Your task to perform on an android device: Empty the shopping cart on target. Image 0: 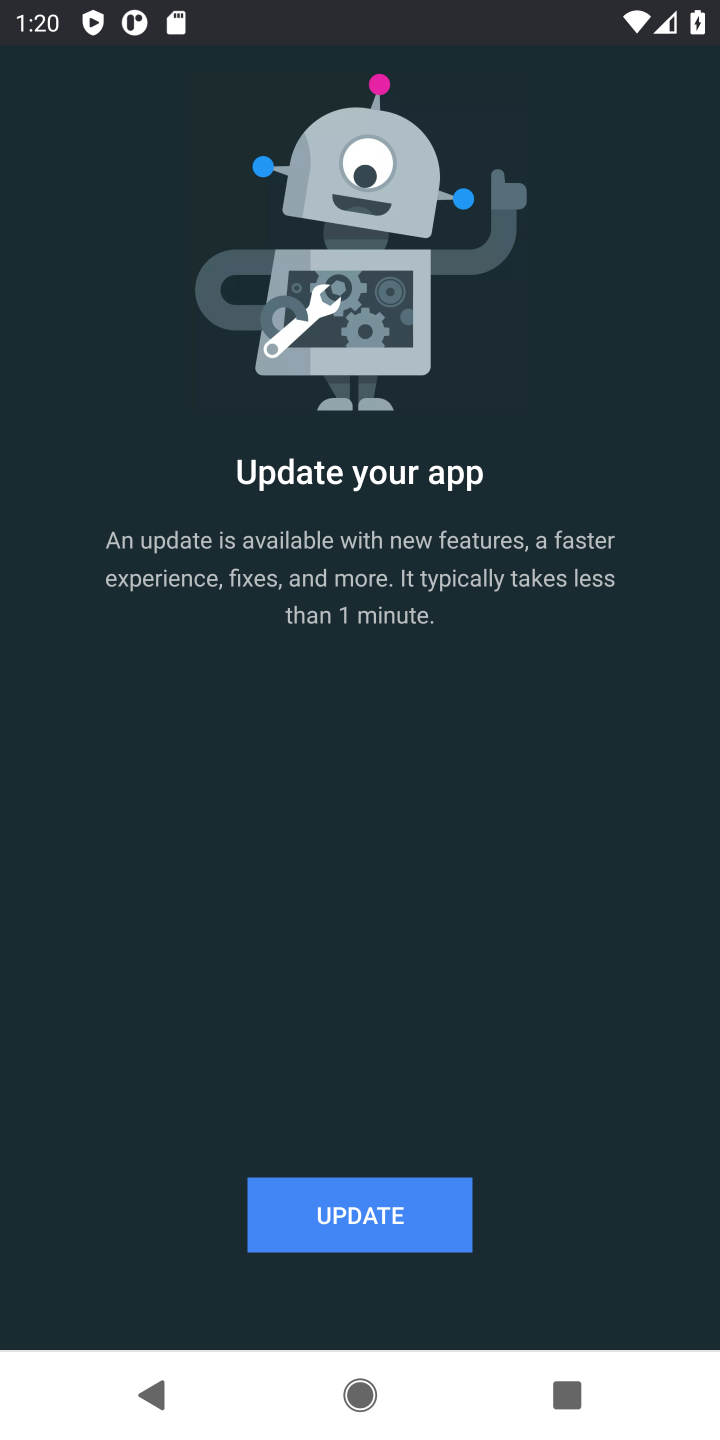
Step 0: press home button
Your task to perform on an android device: Empty the shopping cart on target. Image 1: 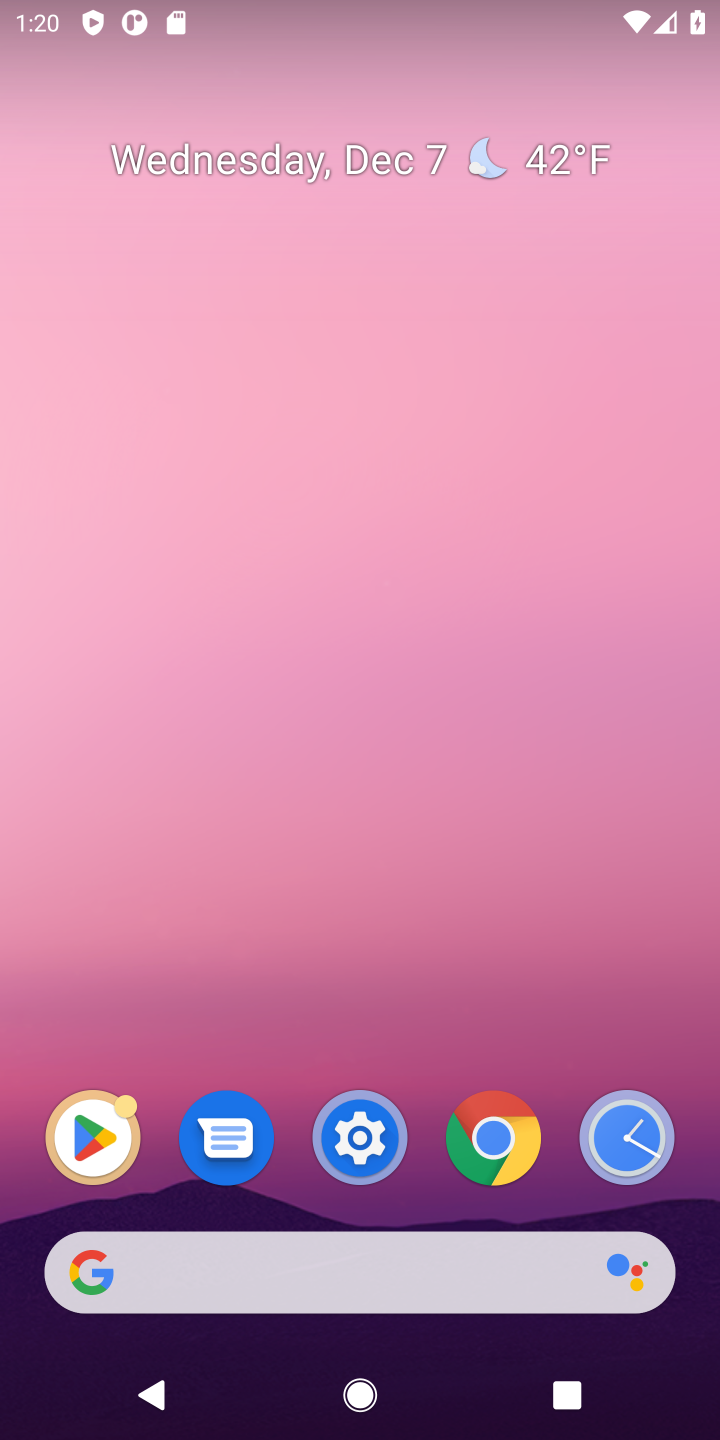
Step 1: click (227, 1270)
Your task to perform on an android device: Empty the shopping cart on target. Image 2: 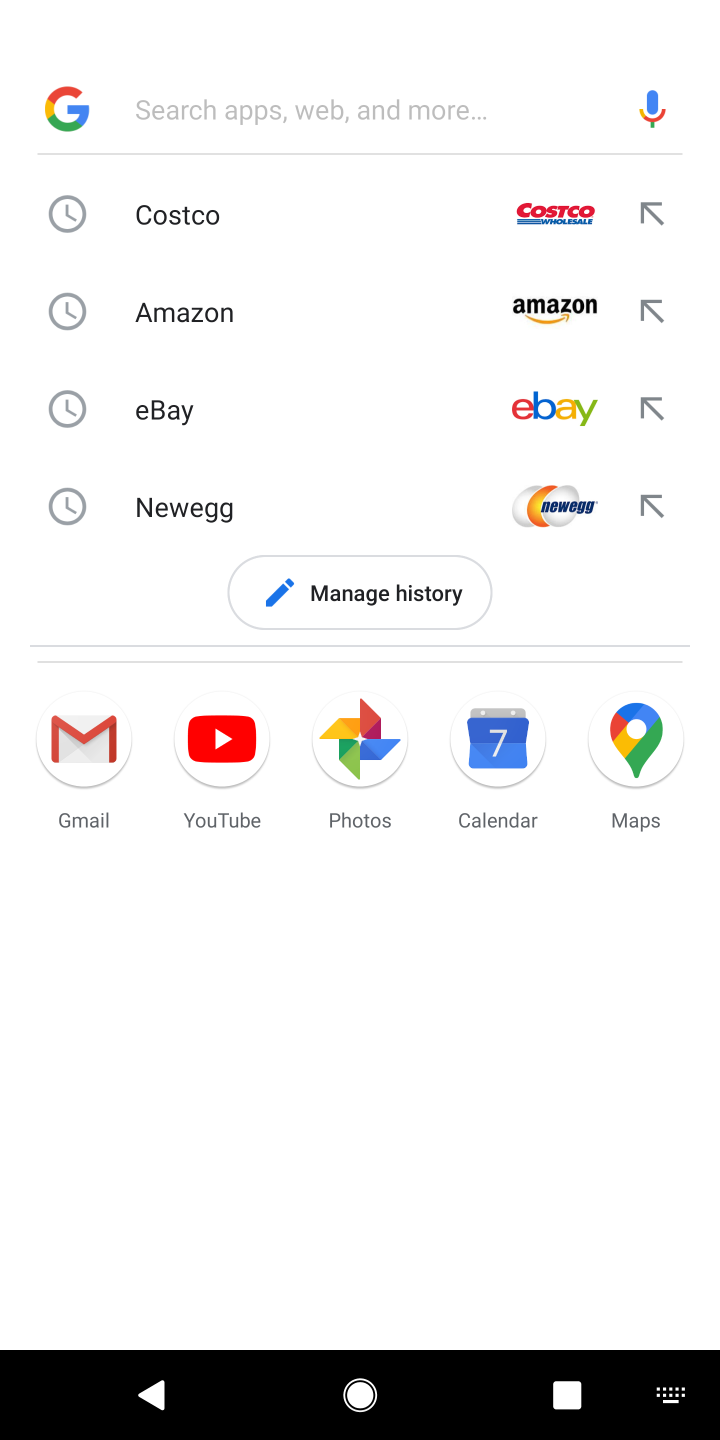
Step 2: type "target]"
Your task to perform on an android device: Empty the shopping cart on target. Image 3: 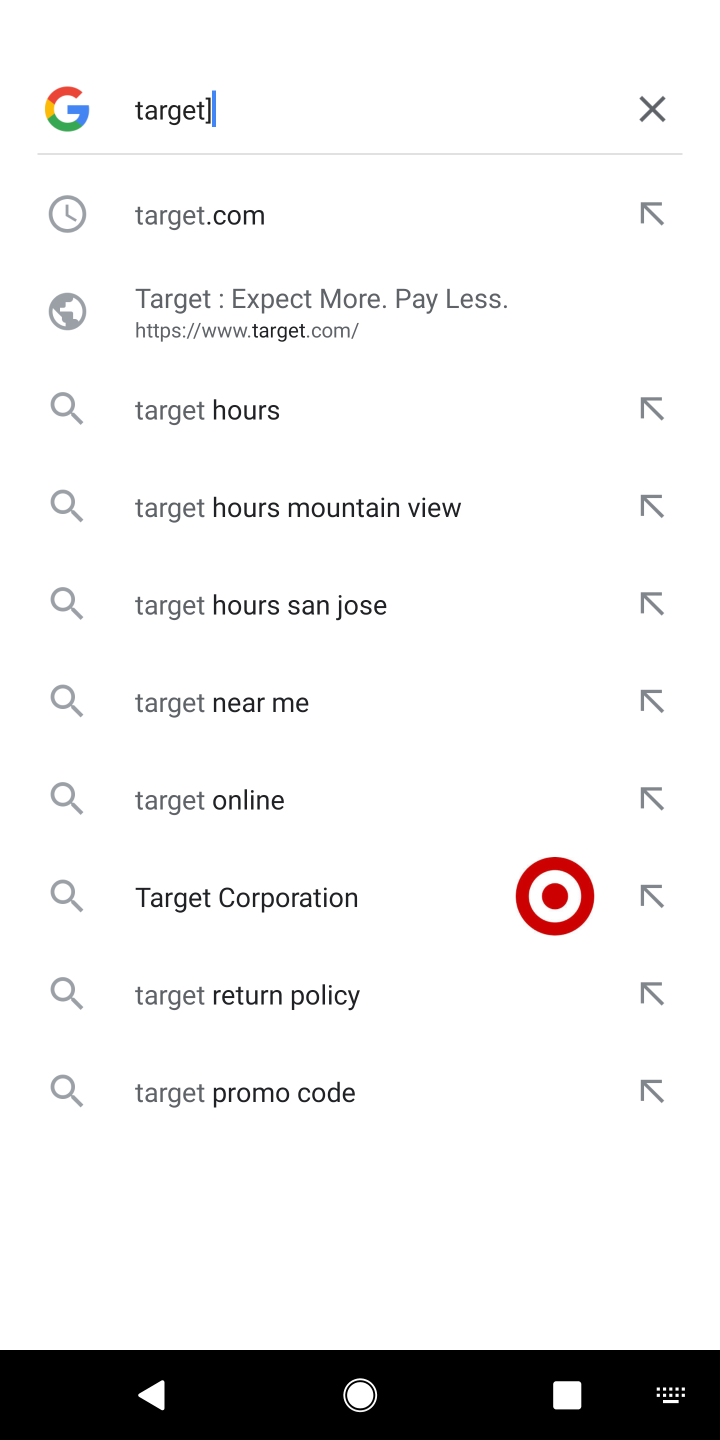
Step 3: click (221, 239)
Your task to perform on an android device: Empty the shopping cart on target. Image 4: 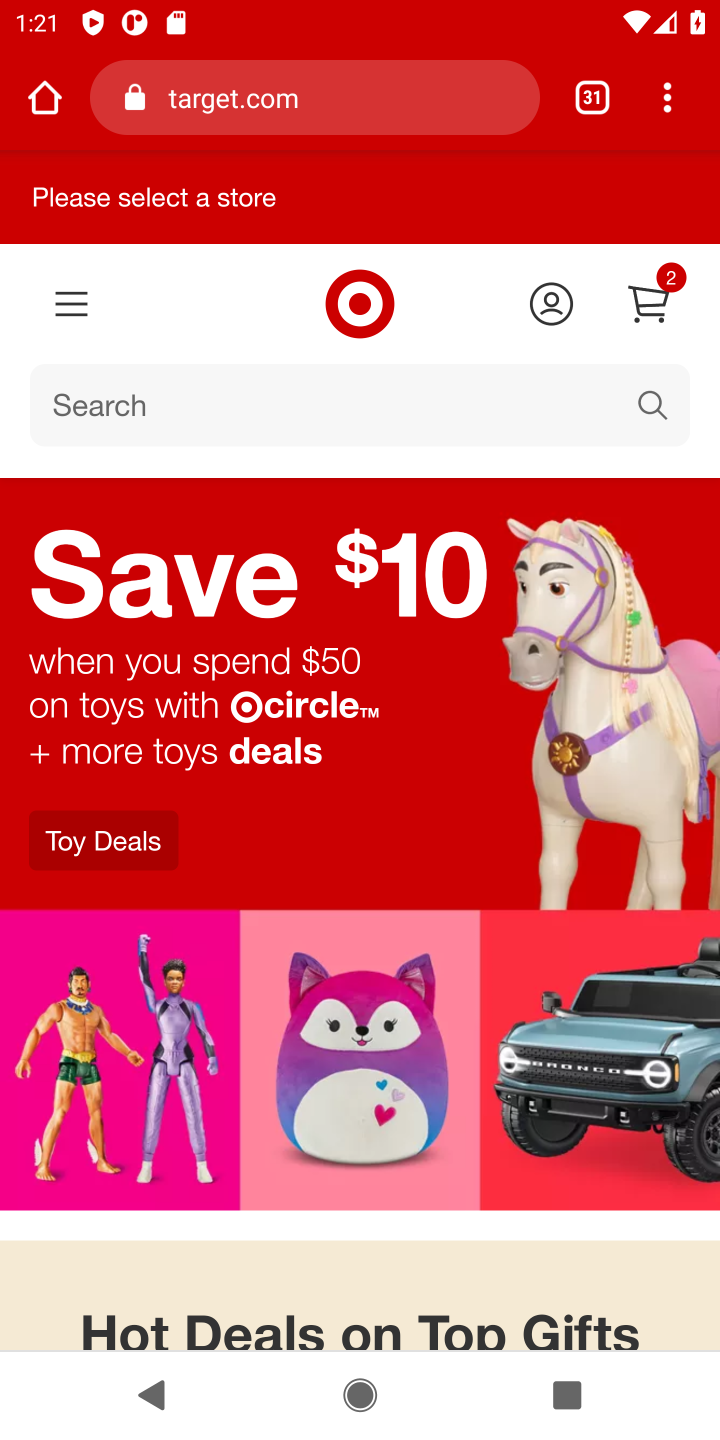
Step 4: click (111, 409)
Your task to perform on an android device: Empty the shopping cart on target. Image 5: 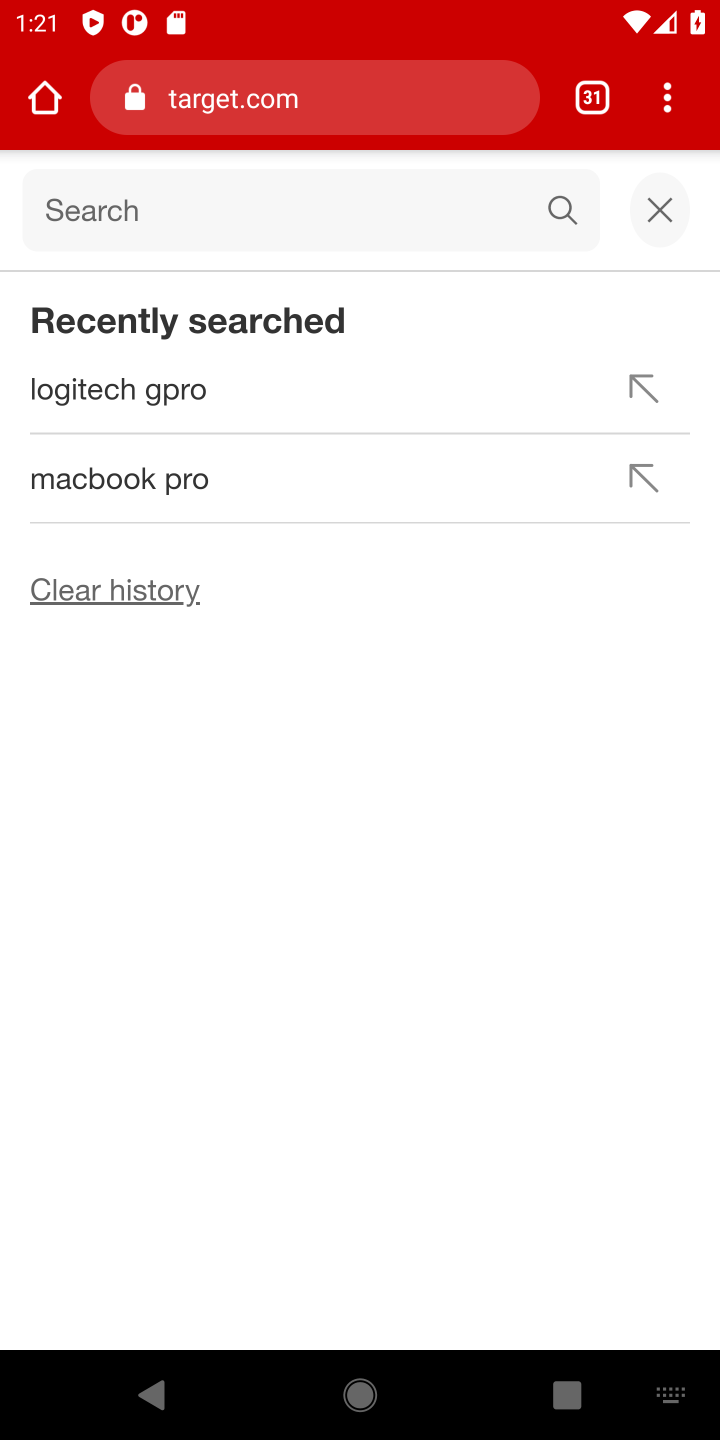
Step 5: click (667, 235)
Your task to perform on an android device: Empty the shopping cart on target. Image 6: 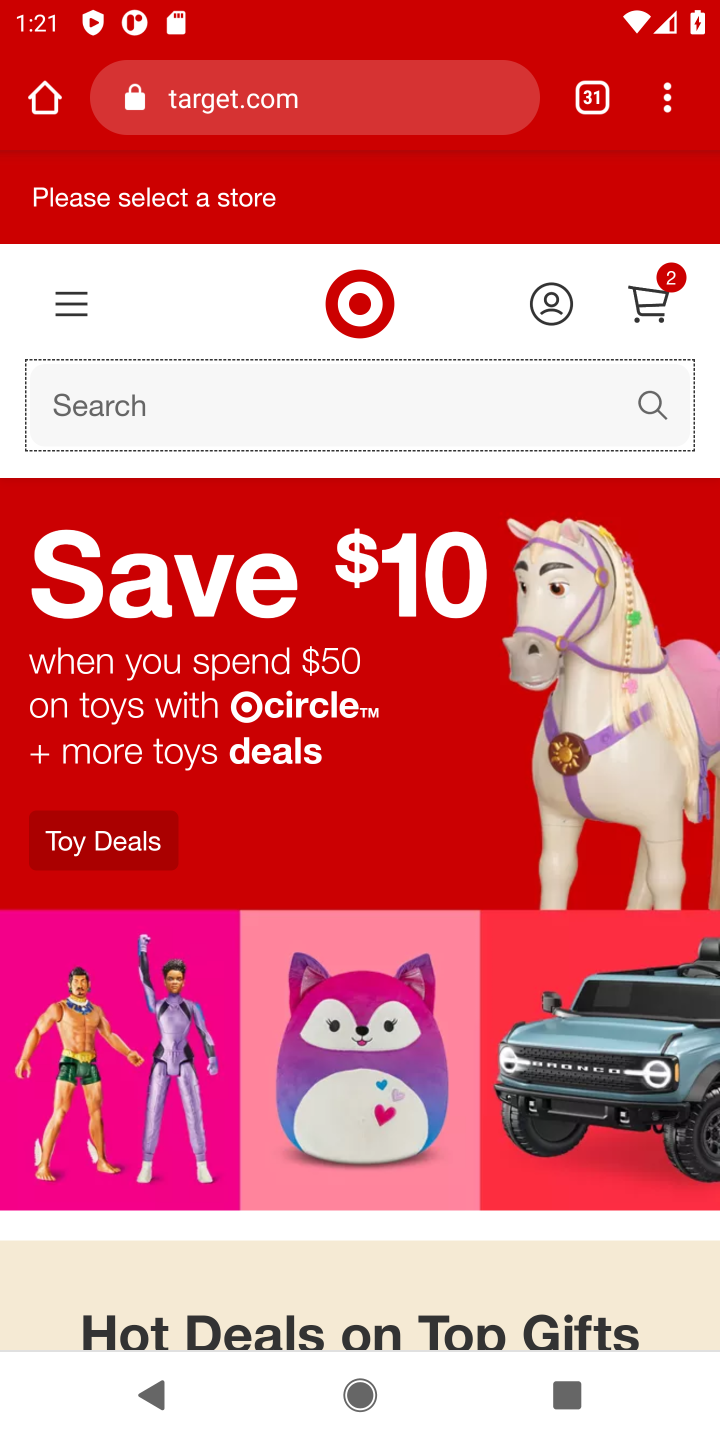
Step 6: click (146, 409)
Your task to perform on an android device: Empty the shopping cart on target. Image 7: 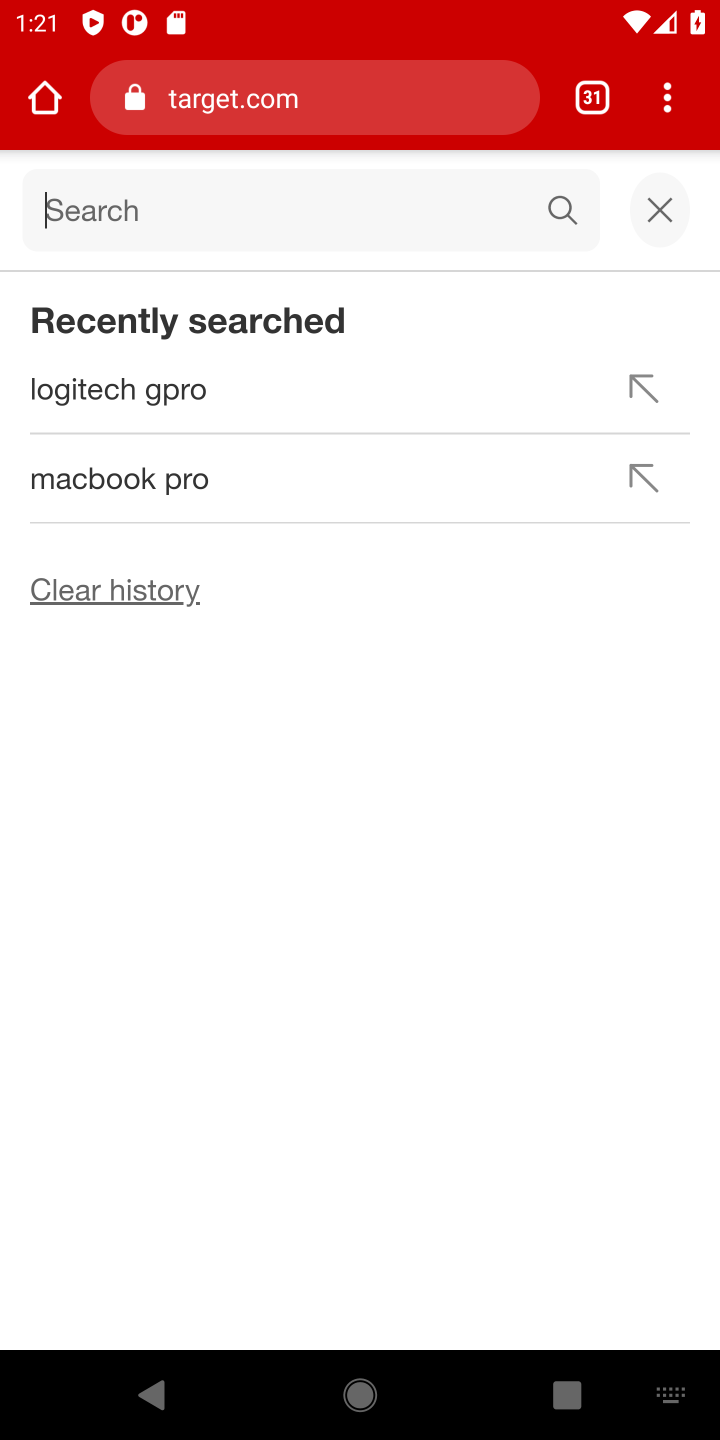
Step 7: task complete